Your task to perform on an android device: open app "Clock" (install if not already installed) Image 0: 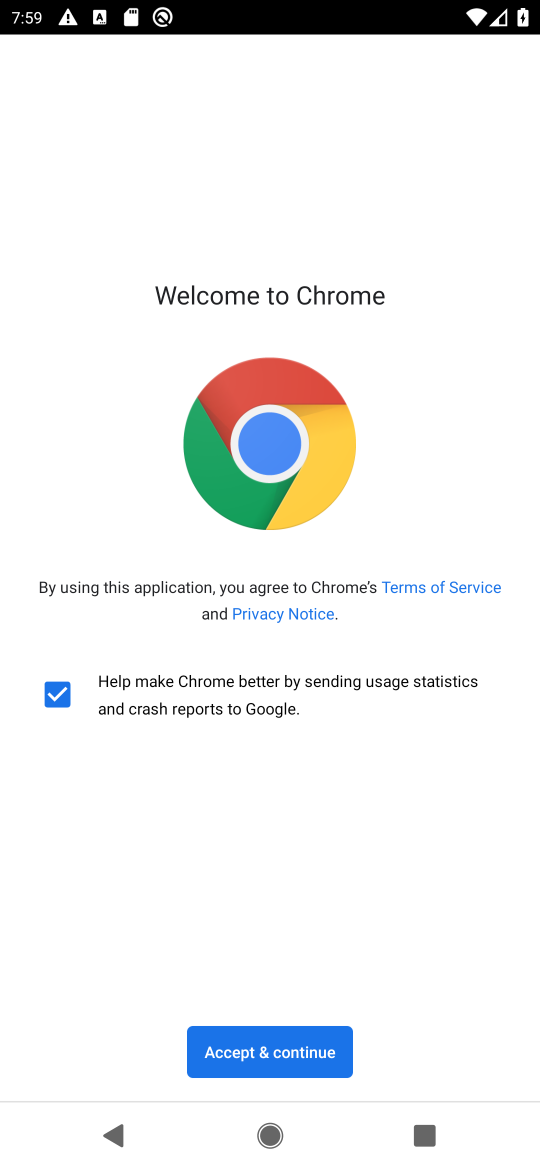
Step 0: press home button
Your task to perform on an android device: open app "Clock" (install if not already installed) Image 1: 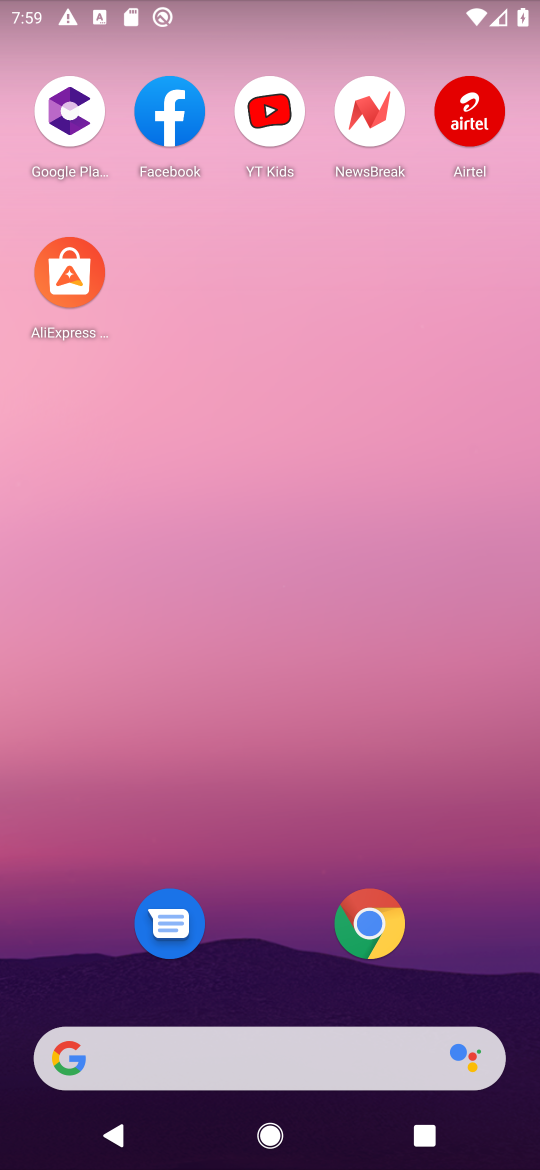
Step 1: press home button
Your task to perform on an android device: open app "Clock" (install if not already installed) Image 2: 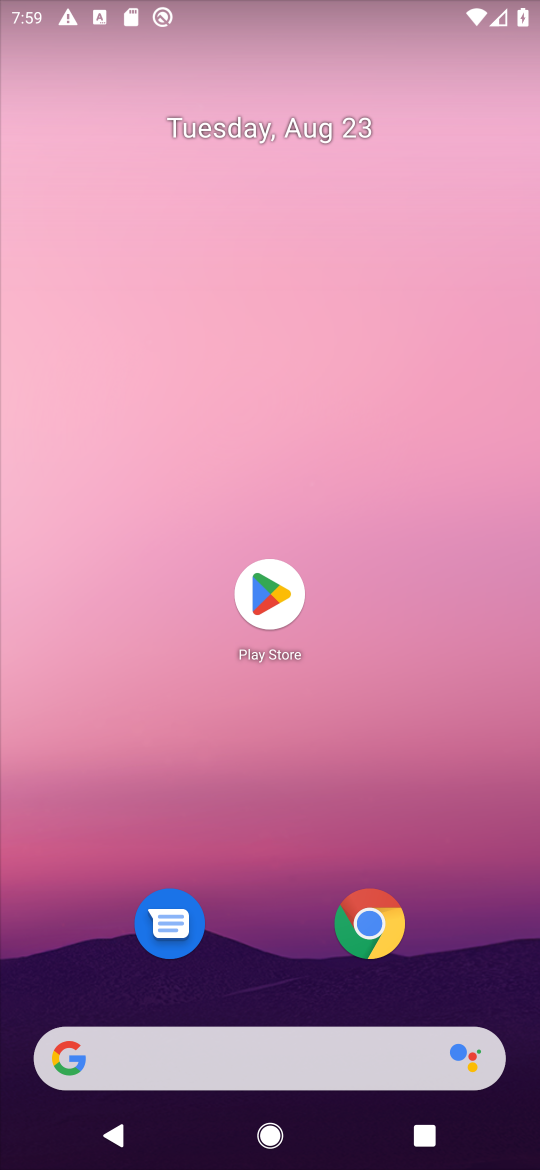
Step 2: click (276, 596)
Your task to perform on an android device: open app "Clock" (install if not already installed) Image 3: 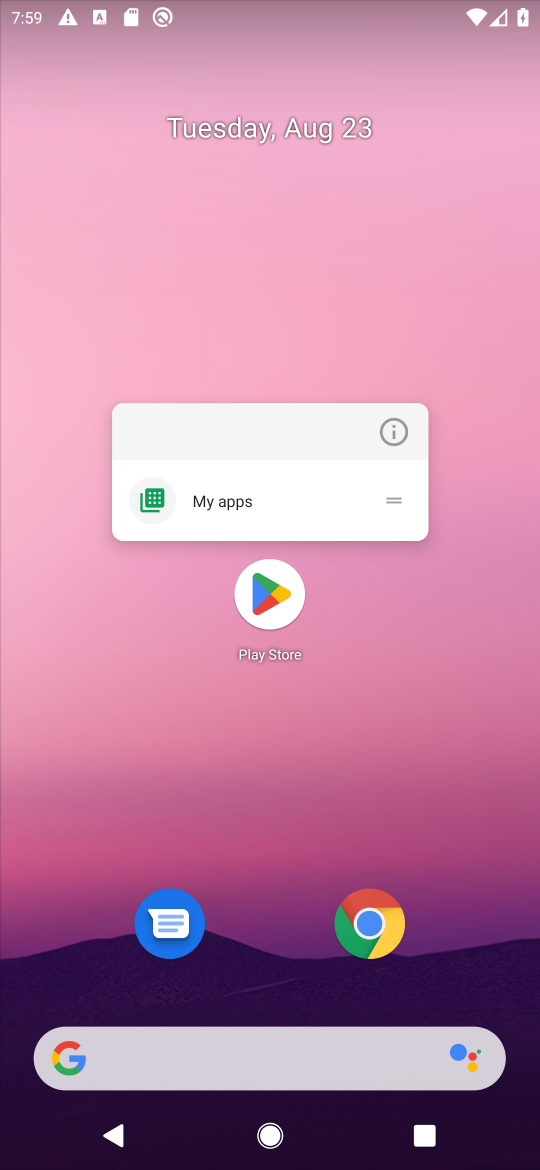
Step 3: click (269, 596)
Your task to perform on an android device: open app "Clock" (install if not already installed) Image 4: 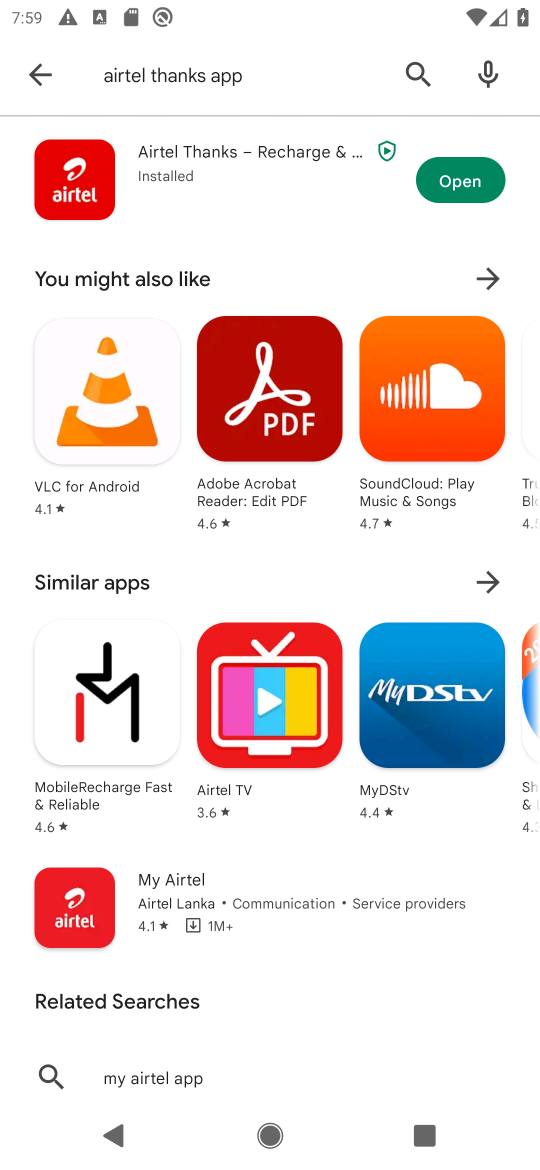
Step 4: click (414, 66)
Your task to perform on an android device: open app "Clock" (install if not already installed) Image 5: 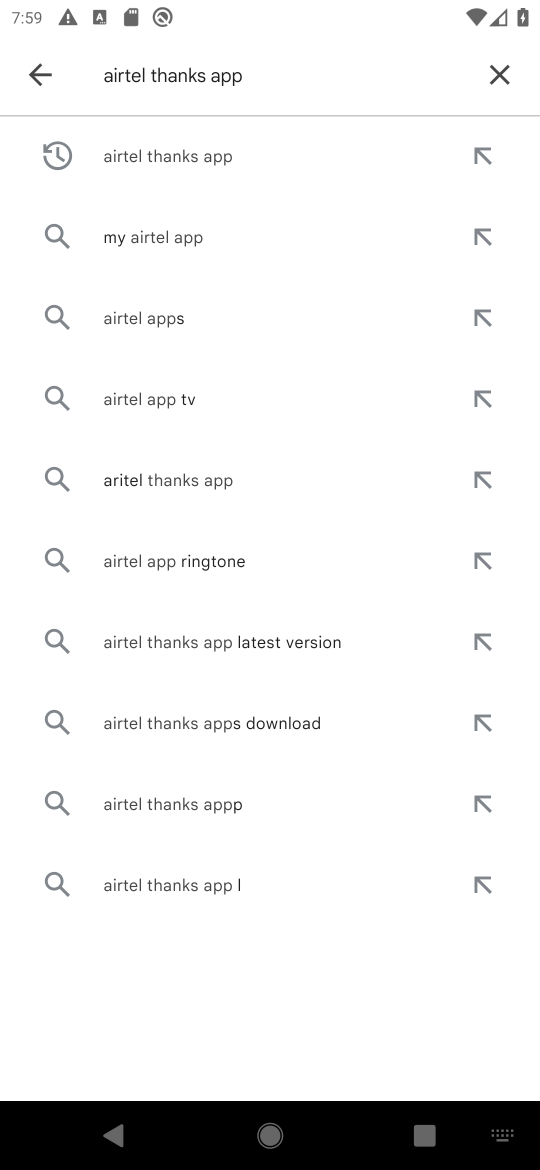
Step 5: click (495, 65)
Your task to perform on an android device: open app "Clock" (install if not already installed) Image 6: 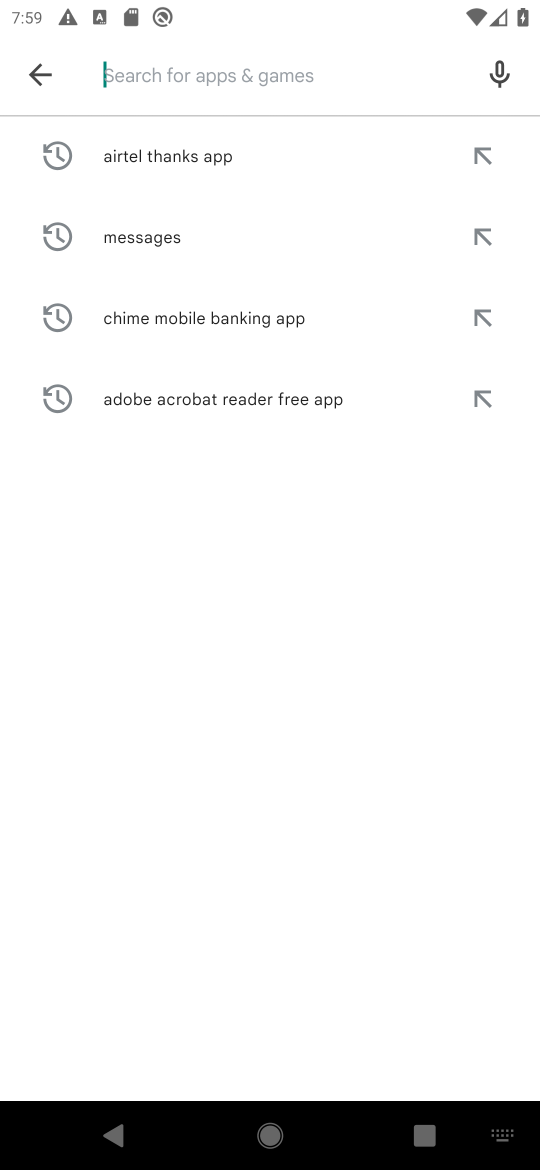
Step 6: type "Clock"
Your task to perform on an android device: open app "Clock" (install if not already installed) Image 7: 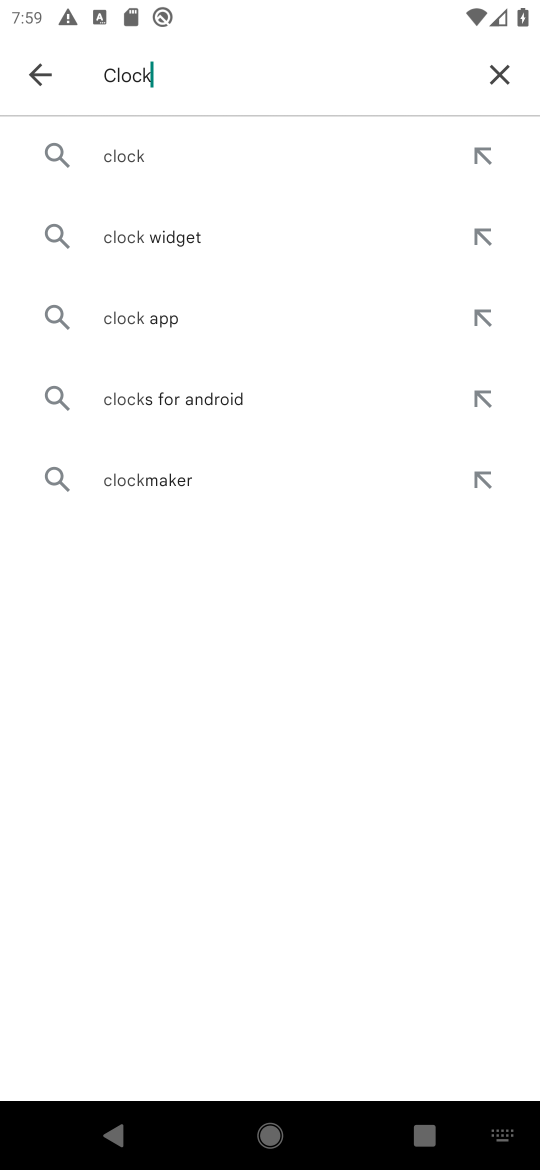
Step 7: click (119, 158)
Your task to perform on an android device: open app "Clock" (install if not already installed) Image 8: 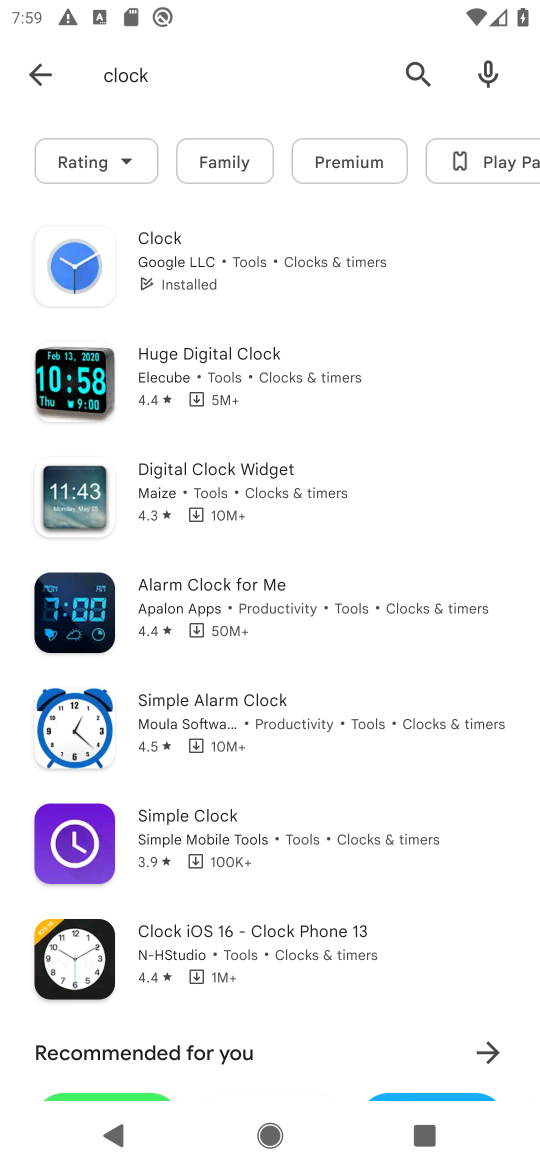
Step 8: click (223, 262)
Your task to perform on an android device: open app "Clock" (install if not already installed) Image 9: 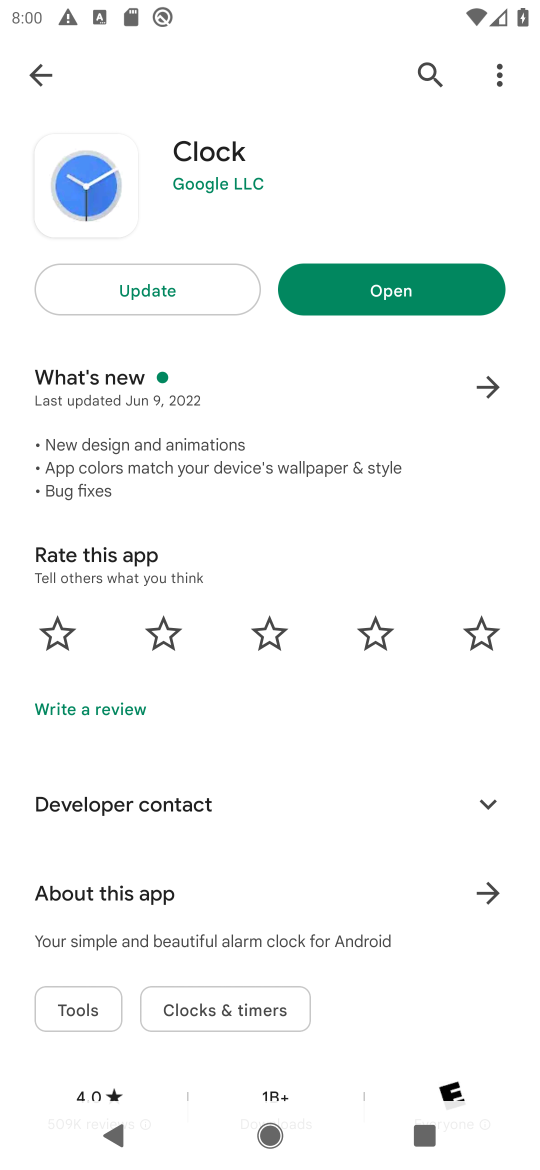
Step 9: click (414, 282)
Your task to perform on an android device: open app "Clock" (install if not already installed) Image 10: 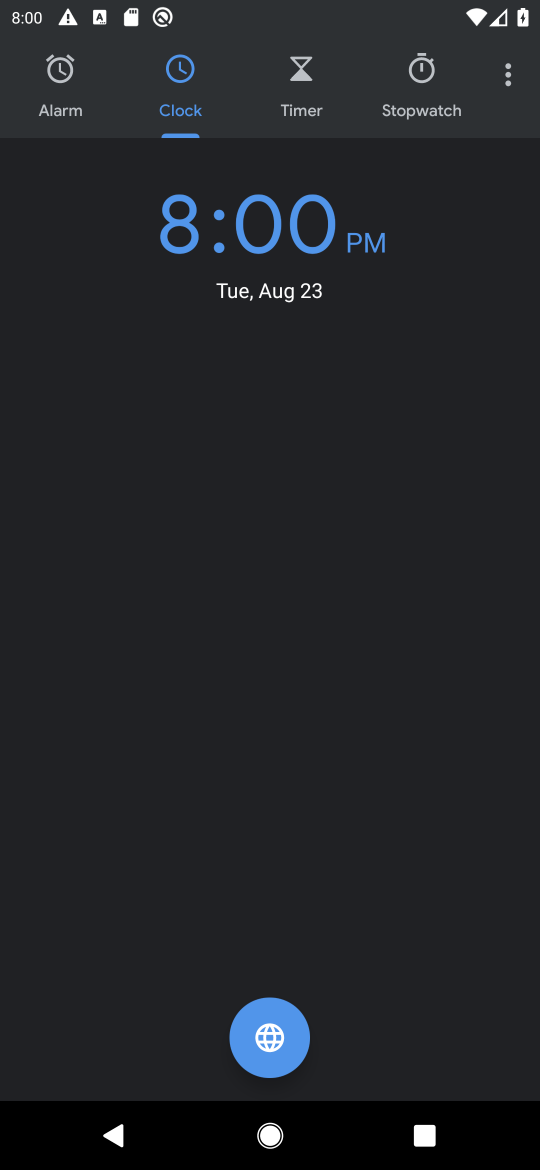
Step 10: task complete